Your task to perform on an android device: manage bookmarks in the chrome app Image 0: 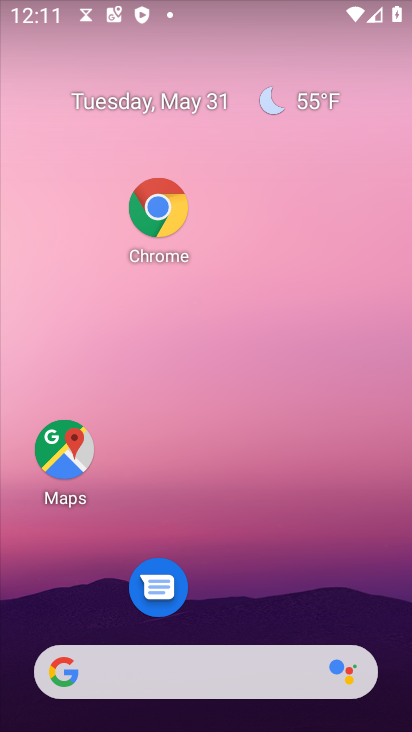
Step 0: click (160, 216)
Your task to perform on an android device: manage bookmarks in the chrome app Image 1: 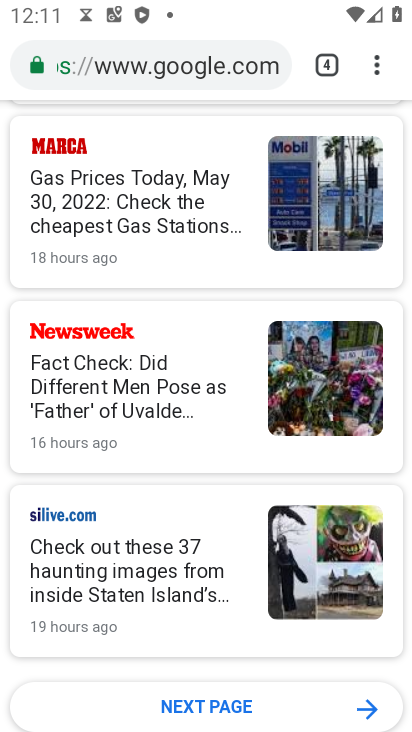
Step 1: click (379, 67)
Your task to perform on an android device: manage bookmarks in the chrome app Image 2: 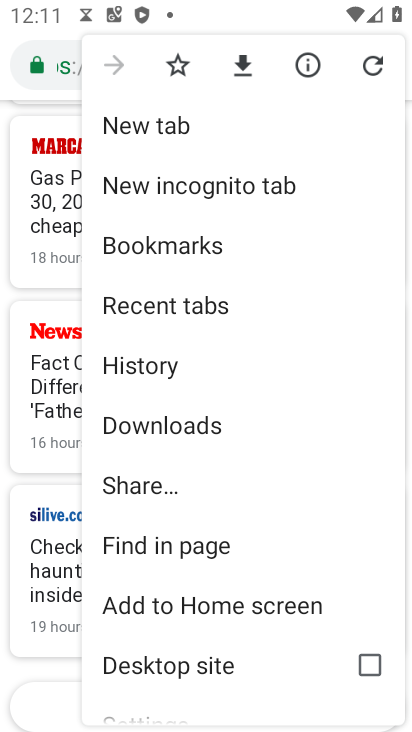
Step 2: click (227, 242)
Your task to perform on an android device: manage bookmarks in the chrome app Image 3: 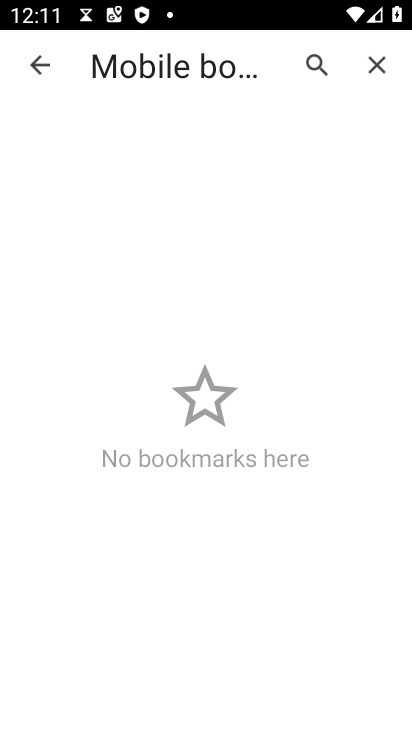
Step 3: task complete